Your task to perform on an android device: check android version Image 0: 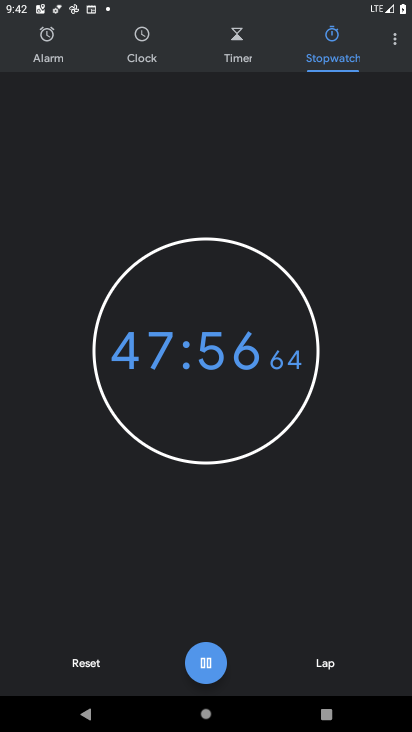
Step 0: press home button
Your task to perform on an android device: check android version Image 1: 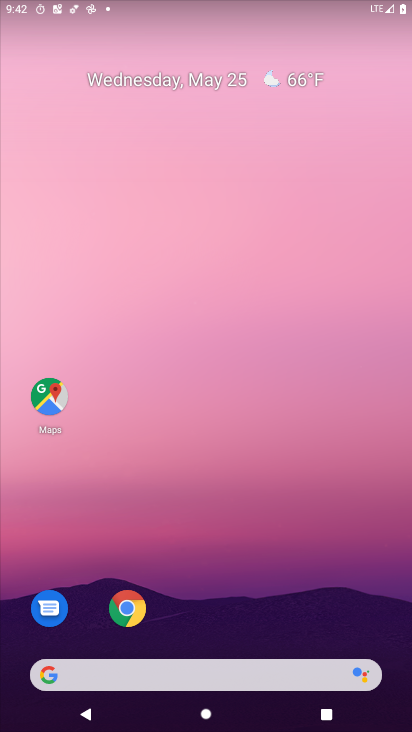
Step 1: drag from (231, 725) to (224, 121)
Your task to perform on an android device: check android version Image 2: 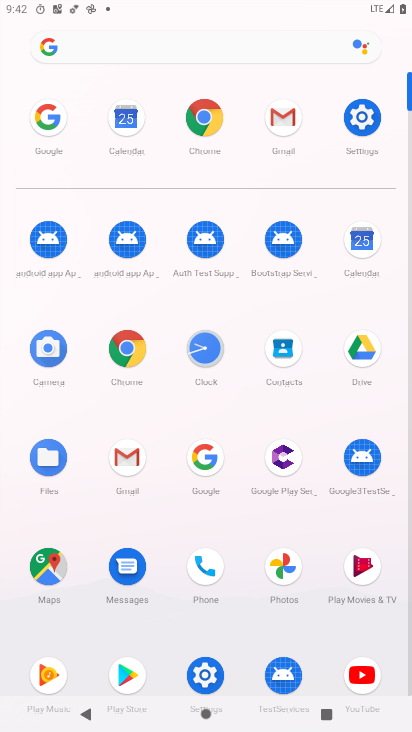
Step 2: click (360, 120)
Your task to perform on an android device: check android version Image 3: 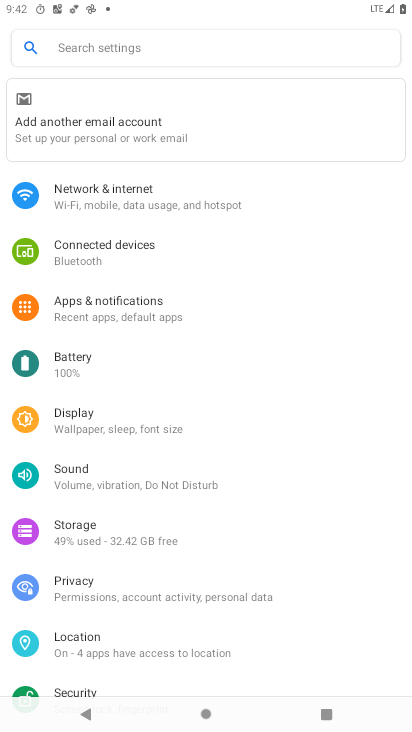
Step 3: drag from (143, 647) to (136, 213)
Your task to perform on an android device: check android version Image 4: 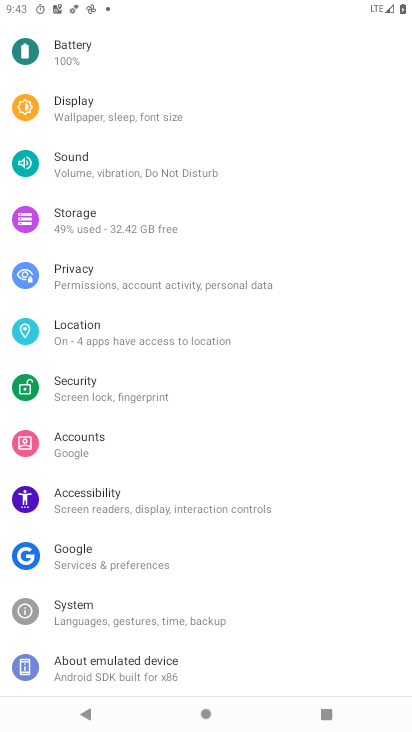
Step 4: click (94, 669)
Your task to perform on an android device: check android version Image 5: 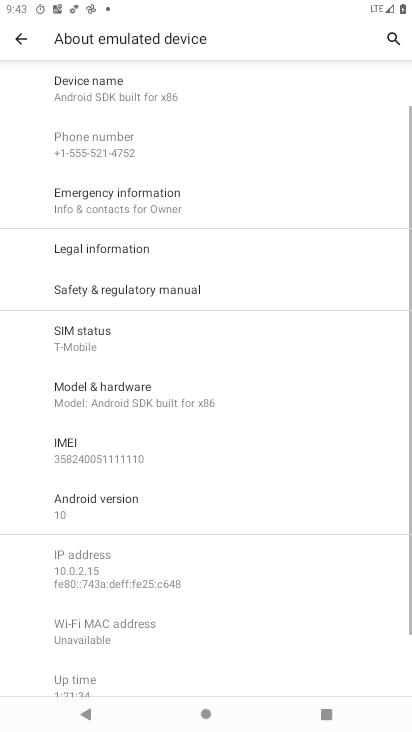
Step 5: click (98, 498)
Your task to perform on an android device: check android version Image 6: 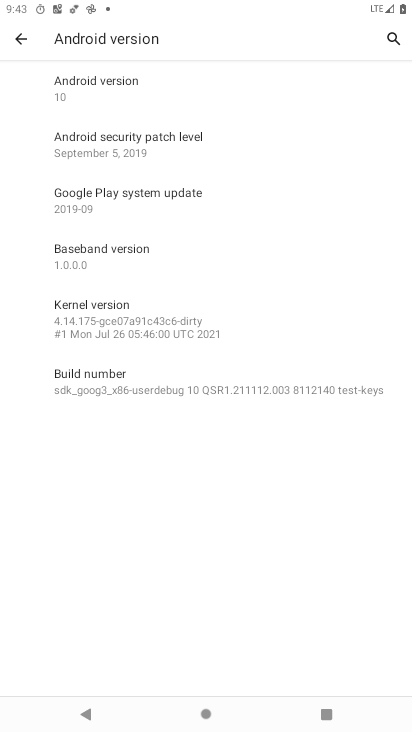
Step 6: task complete